Your task to perform on an android device: Open sound settings Image 0: 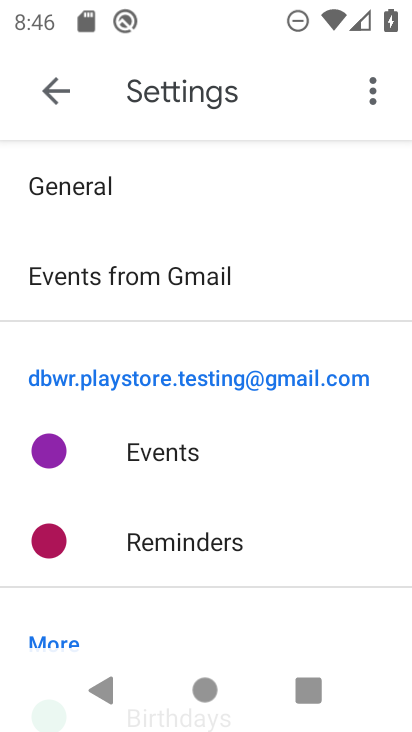
Step 0: press home button
Your task to perform on an android device: Open sound settings Image 1: 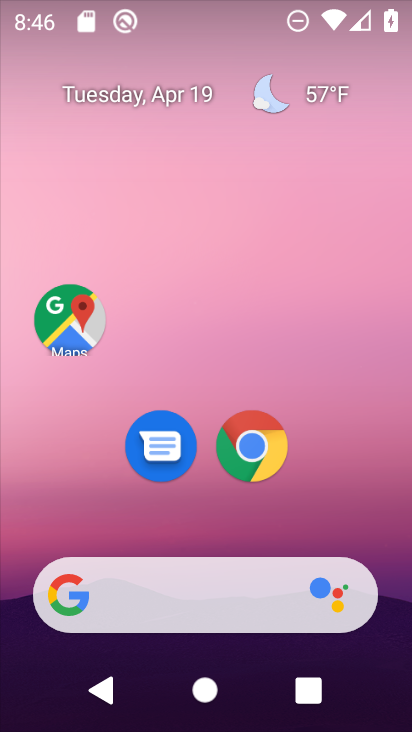
Step 1: drag from (330, 471) to (286, 136)
Your task to perform on an android device: Open sound settings Image 2: 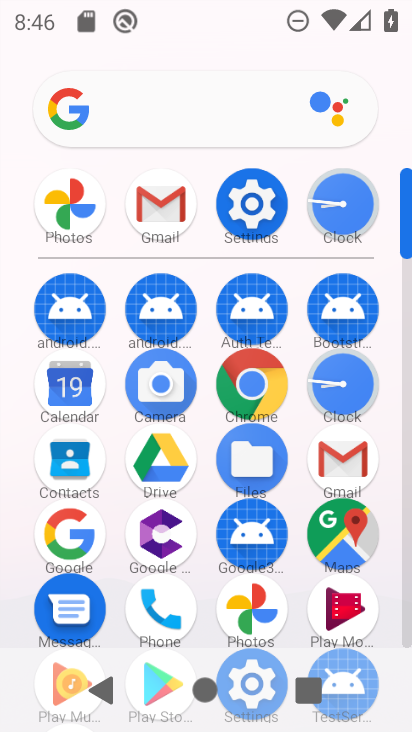
Step 2: click (247, 190)
Your task to perform on an android device: Open sound settings Image 3: 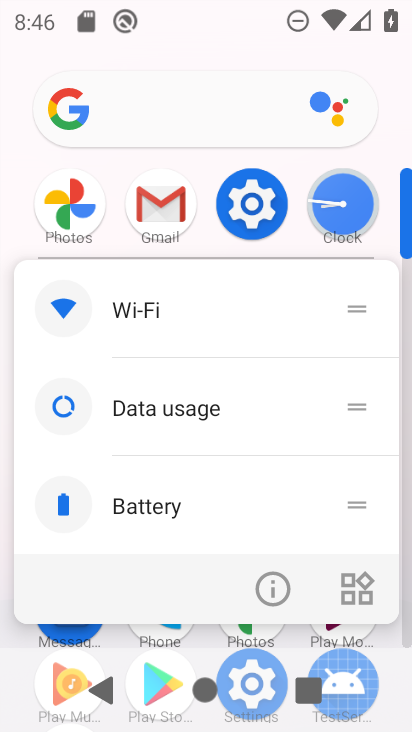
Step 3: click (247, 190)
Your task to perform on an android device: Open sound settings Image 4: 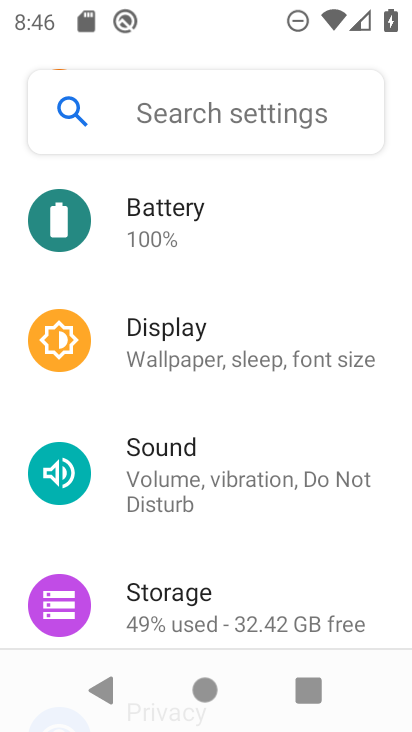
Step 4: click (158, 474)
Your task to perform on an android device: Open sound settings Image 5: 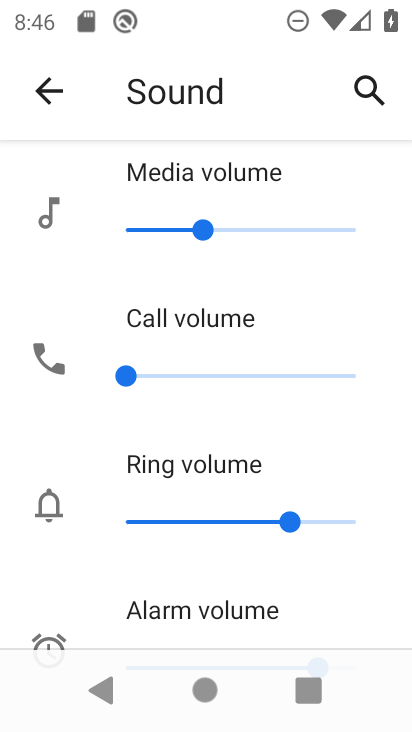
Step 5: task complete